Your task to perform on an android device: star an email in the gmail app Image 0: 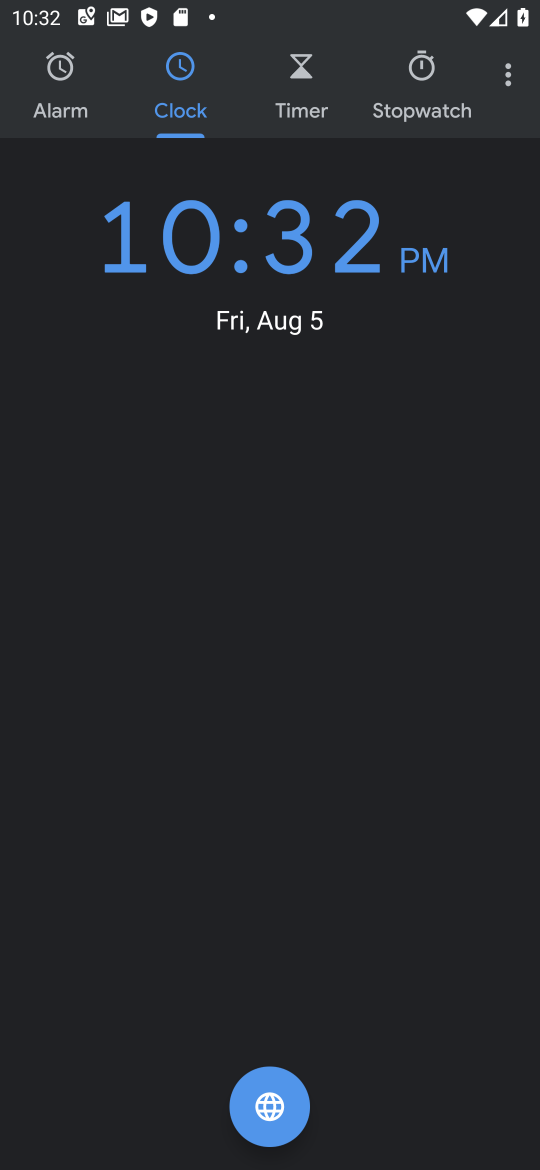
Step 0: press home button
Your task to perform on an android device: star an email in the gmail app Image 1: 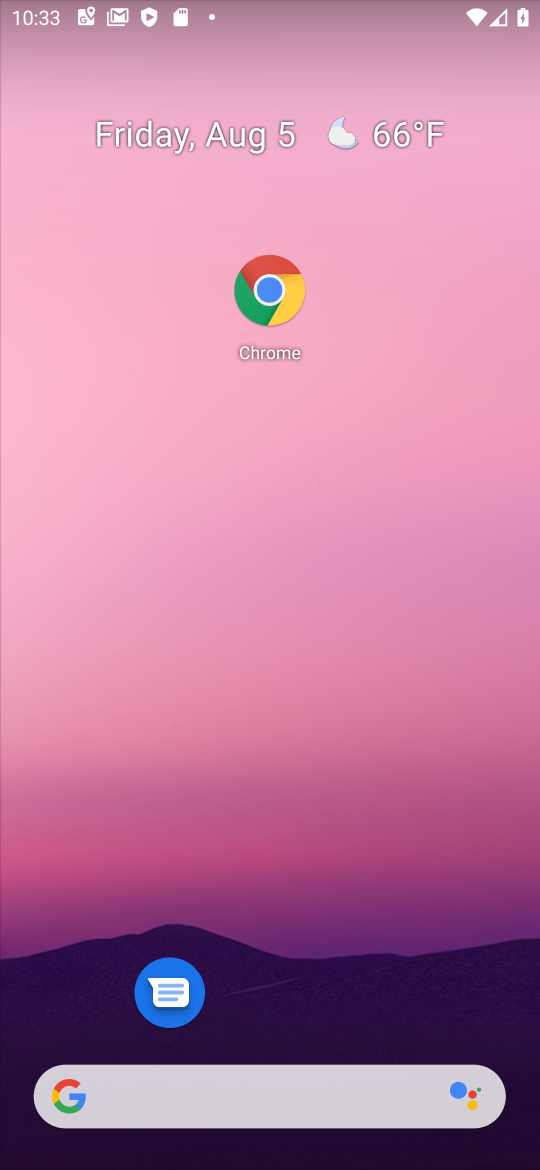
Step 1: drag from (367, 992) to (291, 18)
Your task to perform on an android device: star an email in the gmail app Image 2: 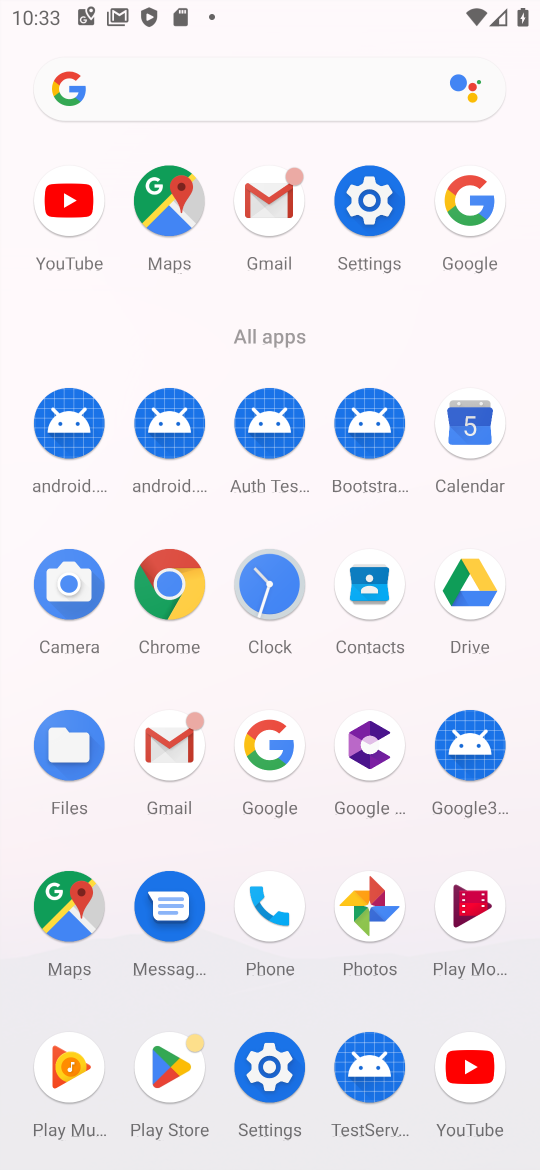
Step 2: click (264, 170)
Your task to perform on an android device: star an email in the gmail app Image 3: 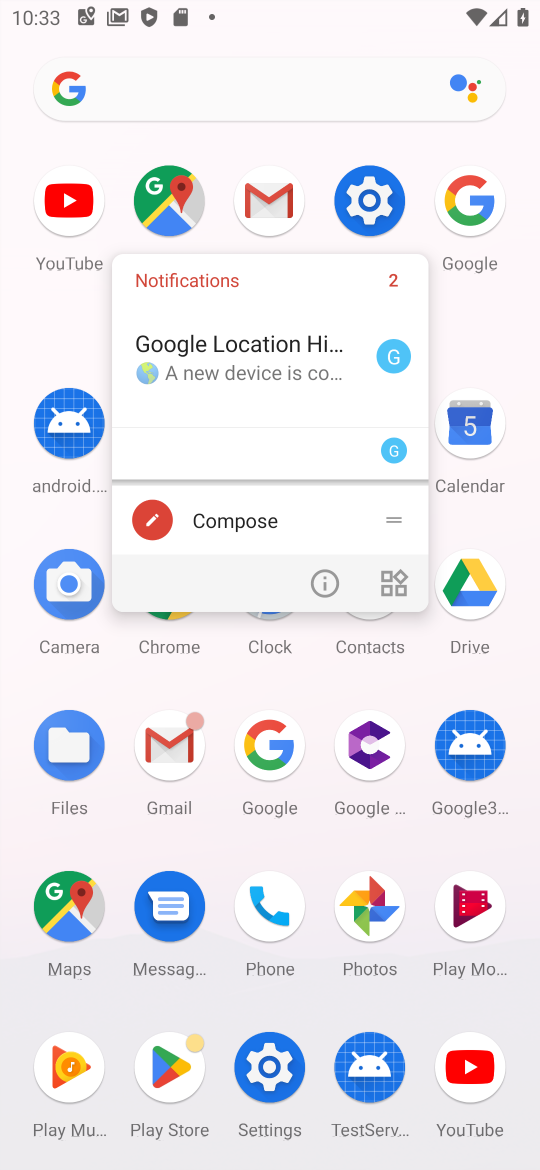
Step 3: click (266, 169)
Your task to perform on an android device: star an email in the gmail app Image 4: 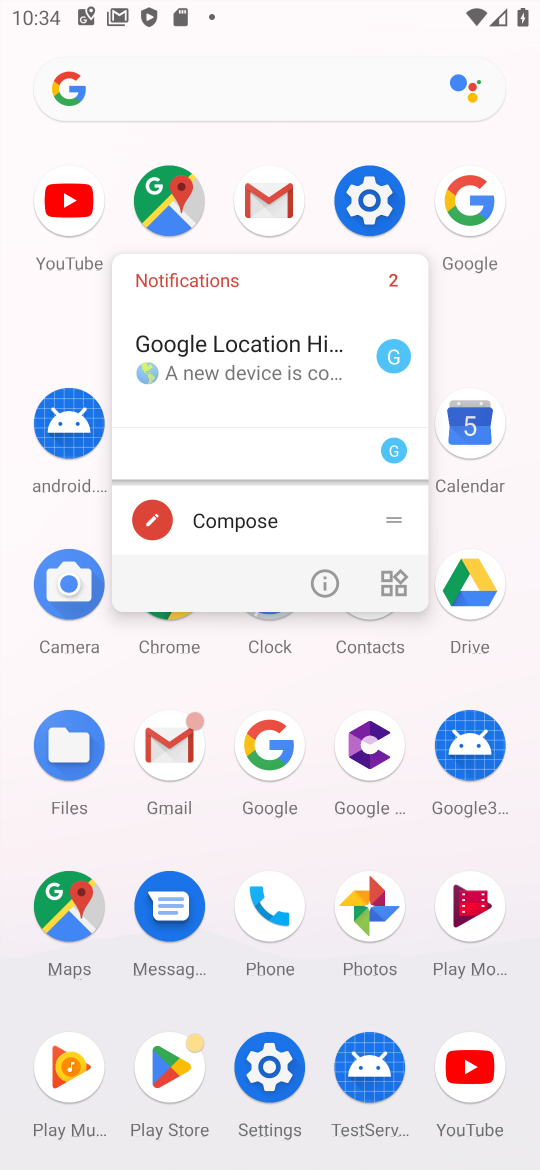
Step 4: click (288, 203)
Your task to perform on an android device: star an email in the gmail app Image 5: 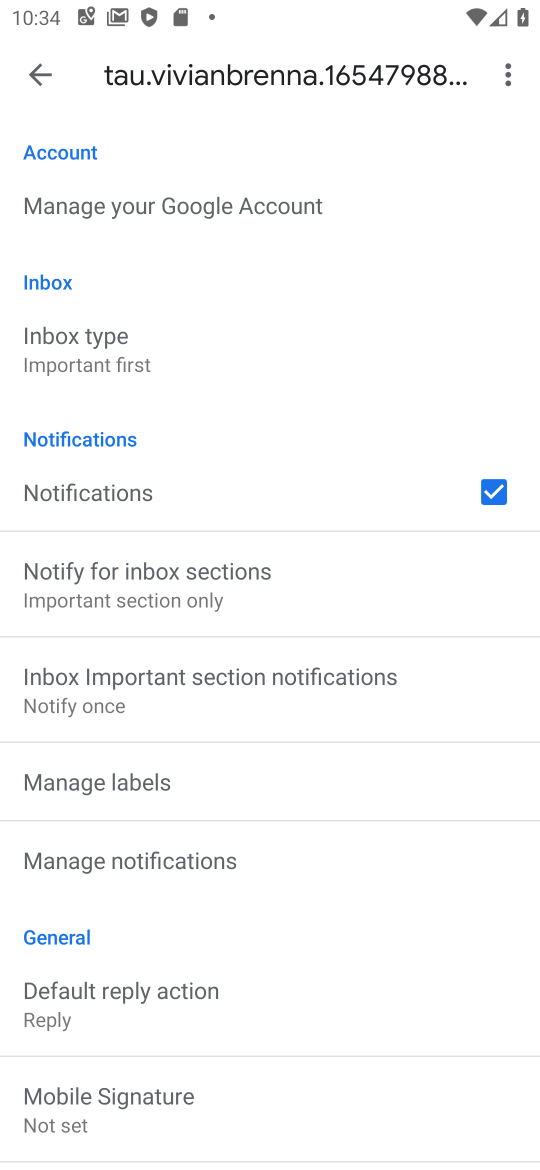
Step 5: click (47, 76)
Your task to perform on an android device: star an email in the gmail app Image 6: 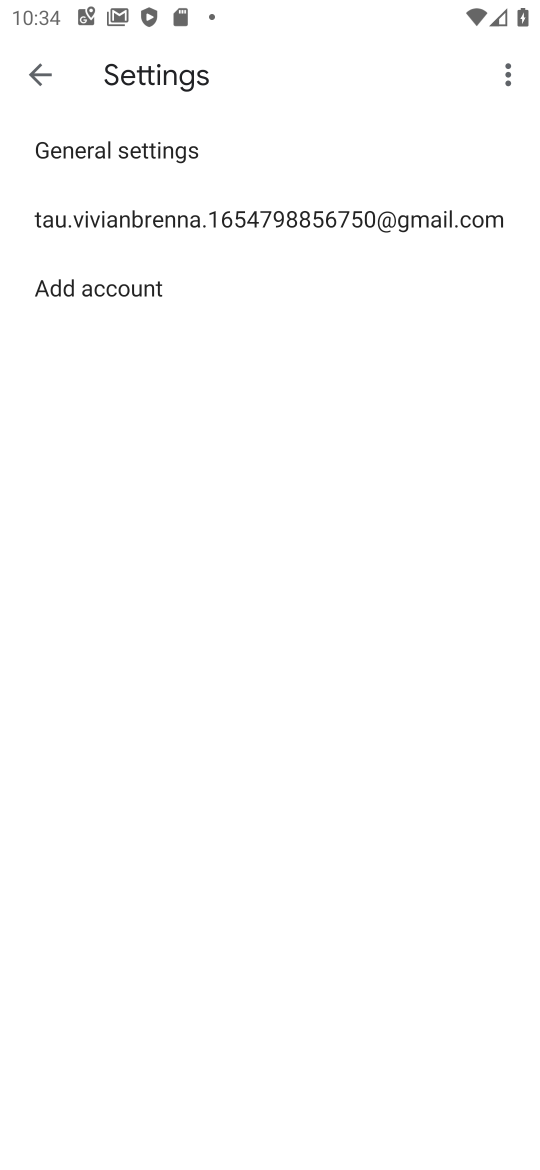
Step 6: click (47, 81)
Your task to perform on an android device: star an email in the gmail app Image 7: 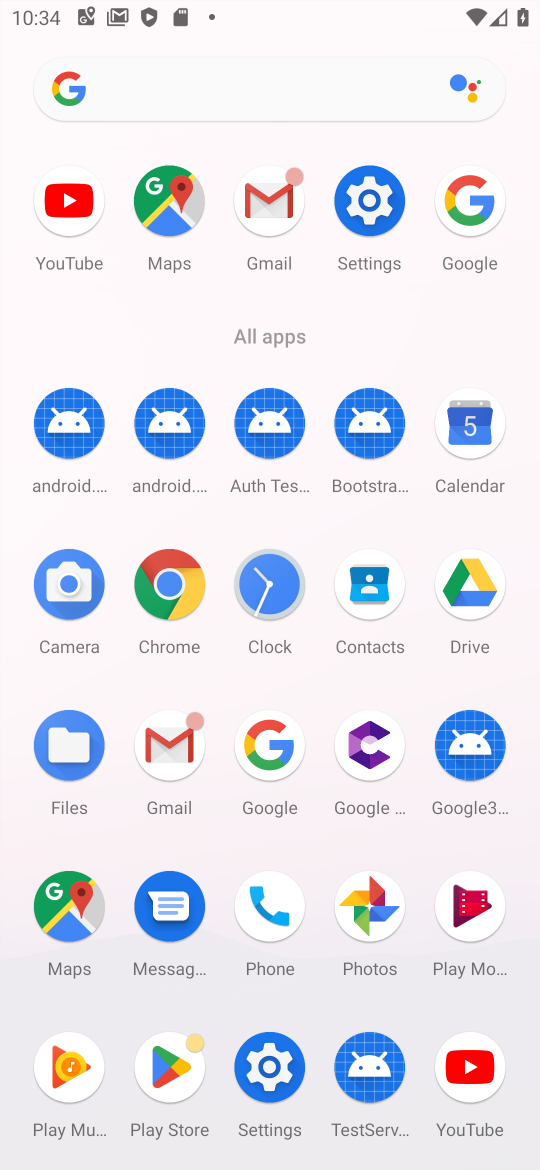
Step 7: click (255, 215)
Your task to perform on an android device: star an email in the gmail app Image 8: 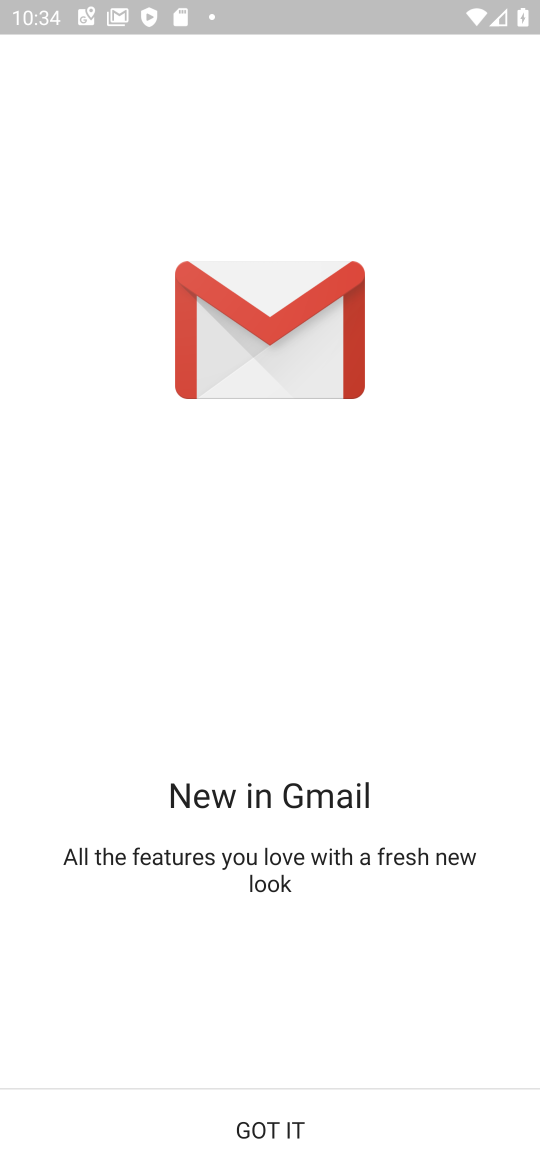
Step 8: click (262, 1137)
Your task to perform on an android device: star an email in the gmail app Image 9: 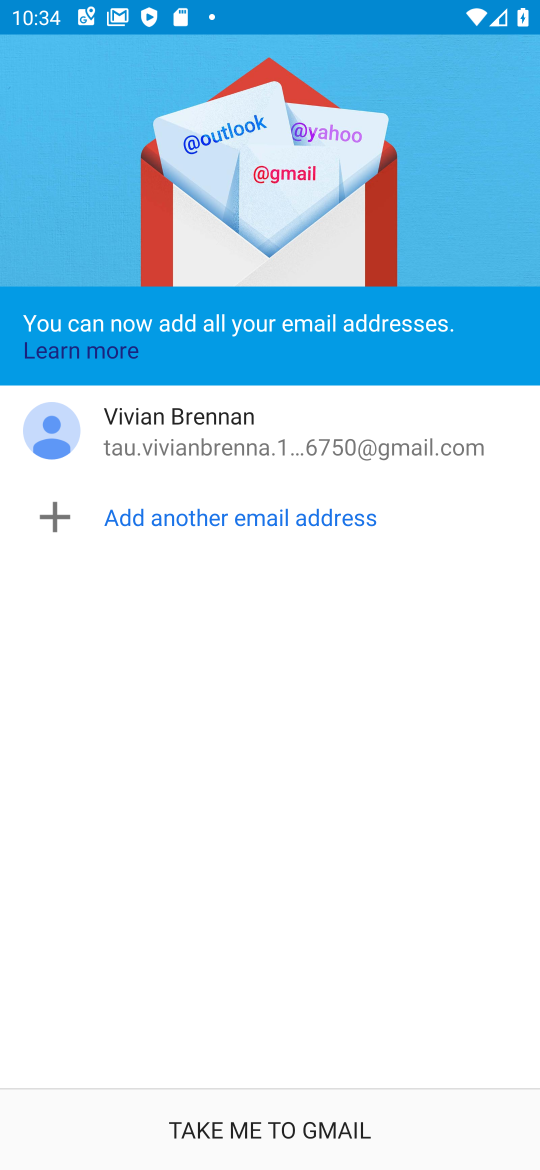
Step 9: click (315, 1140)
Your task to perform on an android device: star an email in the gmail app Image 10: 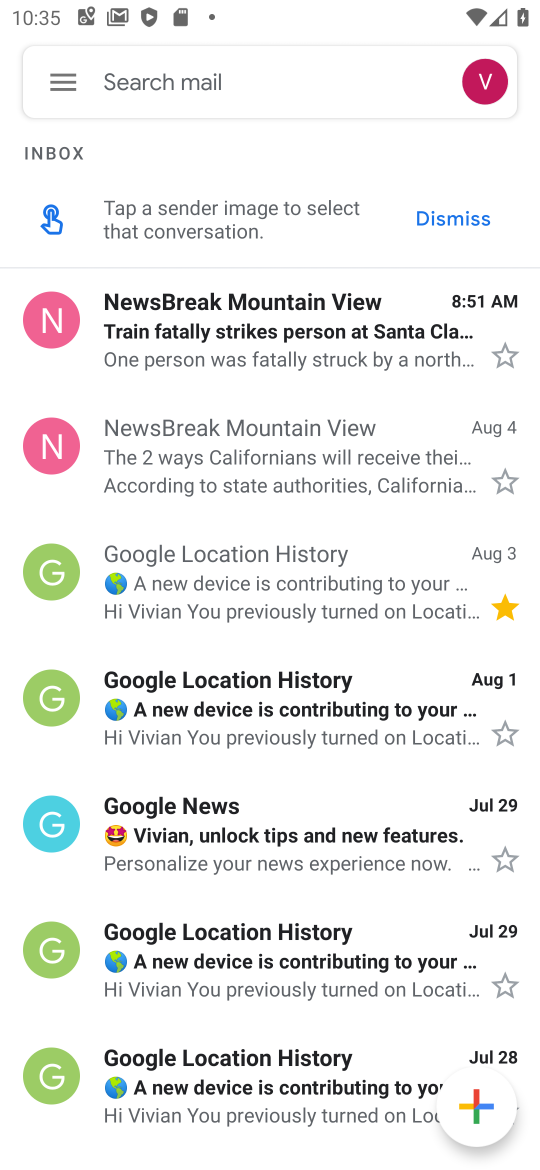
Step 10: click (490, 374)
Your task to perform on an android device: star an email in the gmail app Image 11: 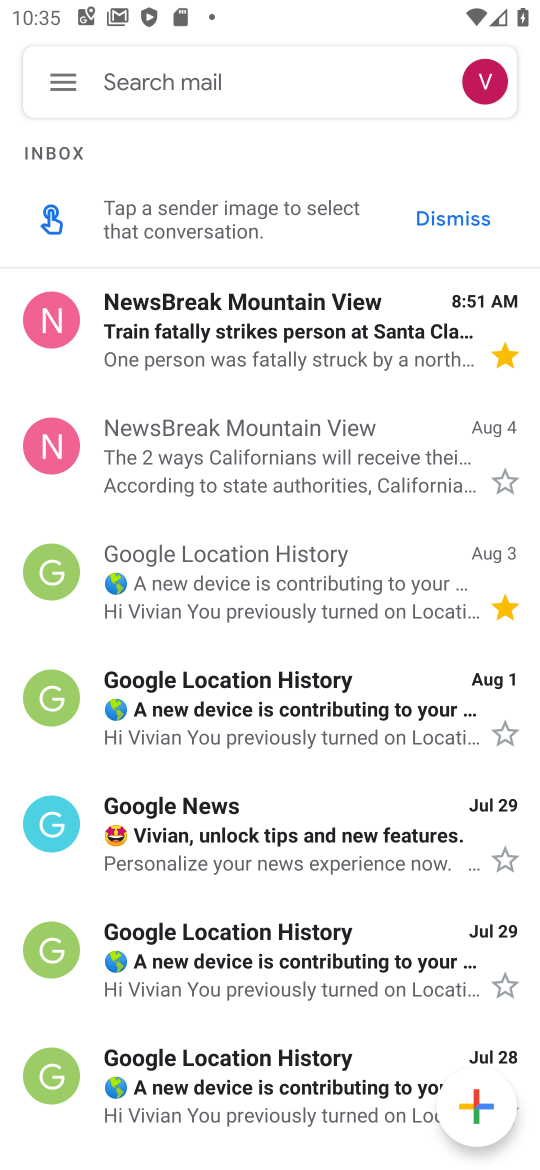
Step 11: task complete